Your task to perform on an android device: Open the Play Movies app and select the watchlist tab. Image 0: 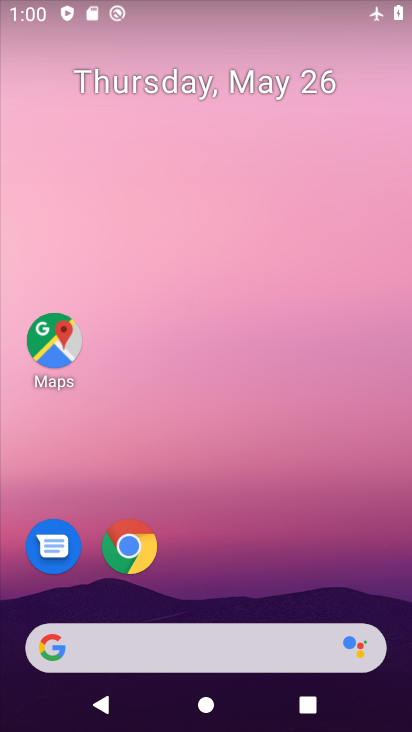
Step 0: drag from (210, 635) to (188, 167)
Your task to perform on an android device: Open the Play Movies app and select the watchlist tab. Image 1: 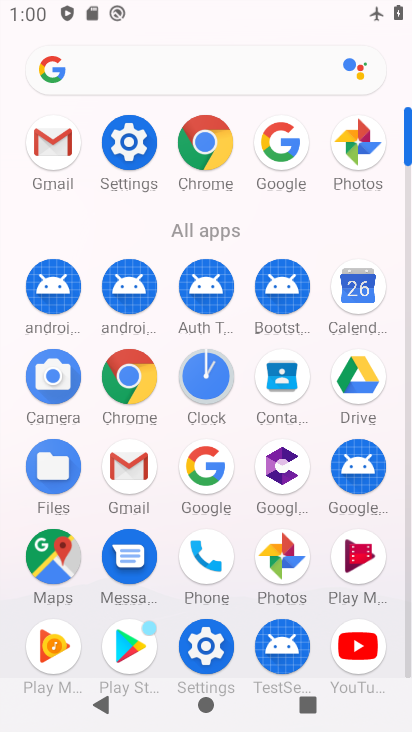
Step 1: click (358, 574)
Your task to perform on an android device: Open the Play Movies app and select the watchlist tab. Image 2: 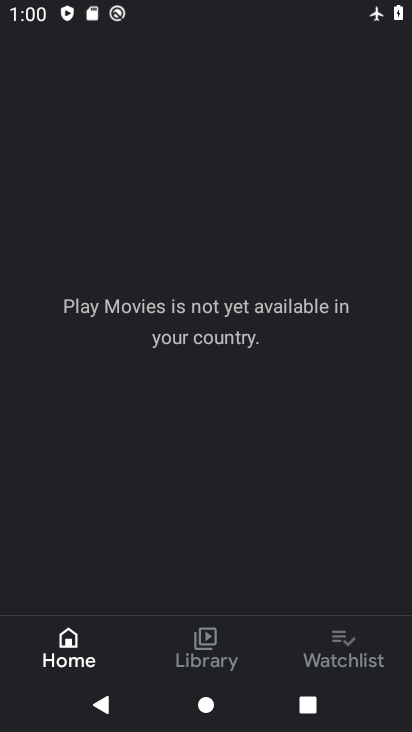
Step 2: click (276, 660)
Your task to perform on an android device: Open the Play Movies app and select the watchlist tab. Image 3: 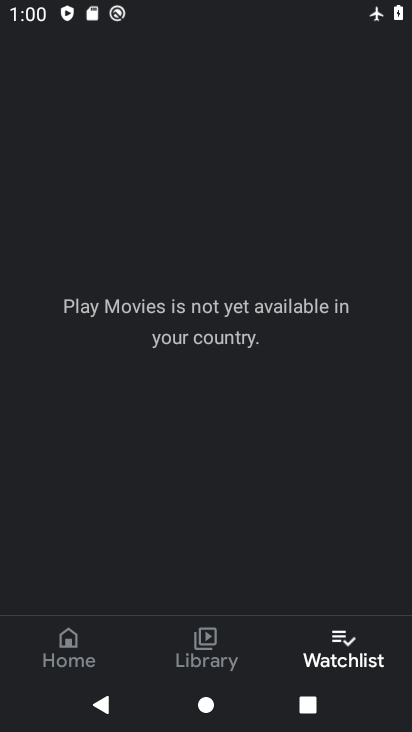
Step 3: task complete